Your task to perform on an android device: Open location settings Image 0: 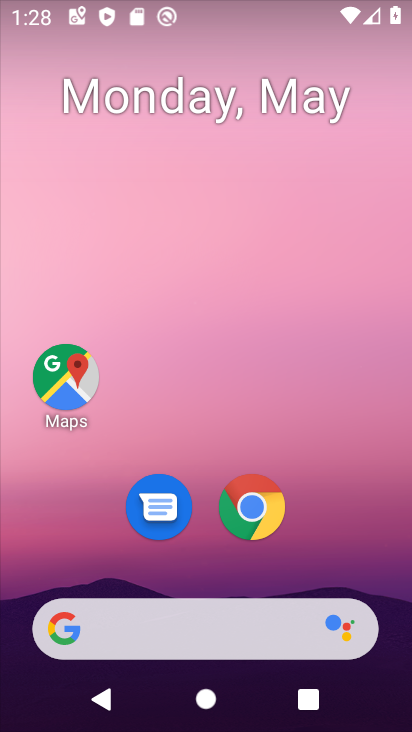
Step 0: drag from (250, 713) to (239, 99)
Your task to perform on an android device: Open location settings Image 1: 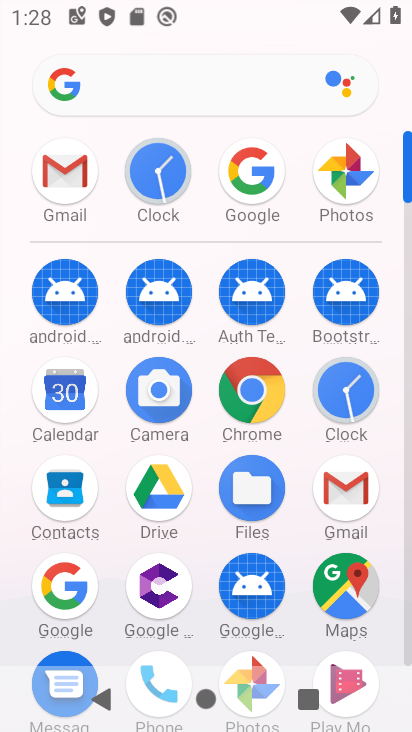
Step 1: drag from (195, 562) to (195, 177)
Your task to perform on an android device: Open location settings Image 2: 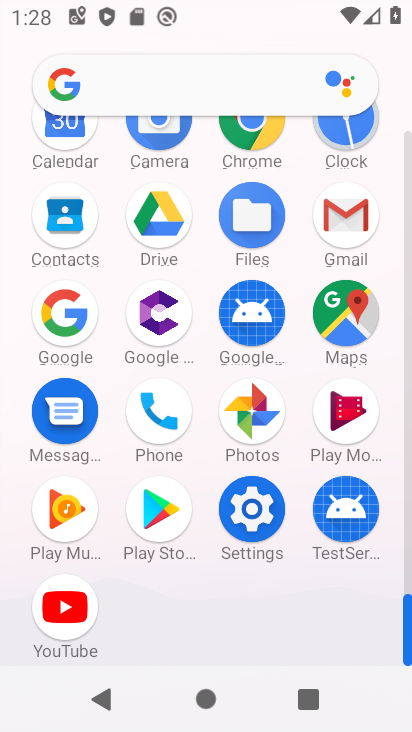
Step 2: click (252, 520)
Your task to perform on an android device: Open location settings Image 3: 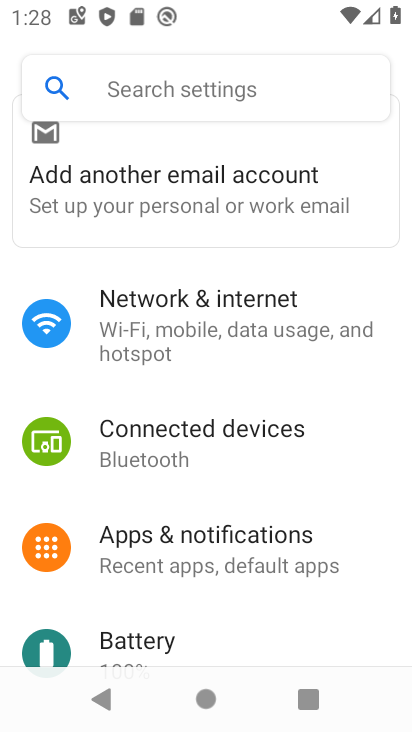
Step 3: drag from (218, 617) to (221, 210)
Your task to perform on an android device: Open location settings Image 4: 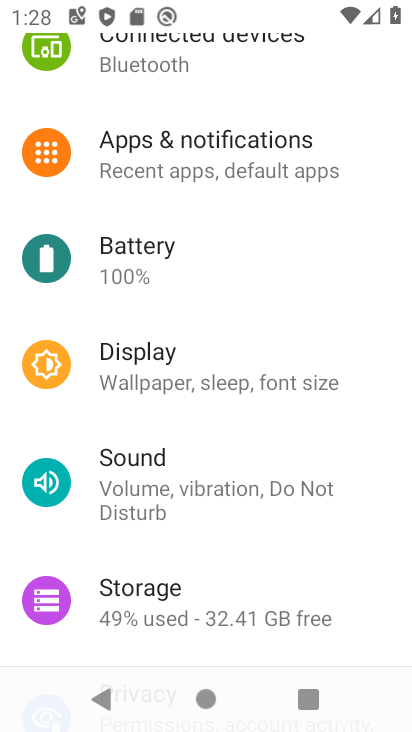
Step 4: drag from (200, 637) to (200, 242)
Your task to perform on an android device: Open location settings Image 5: 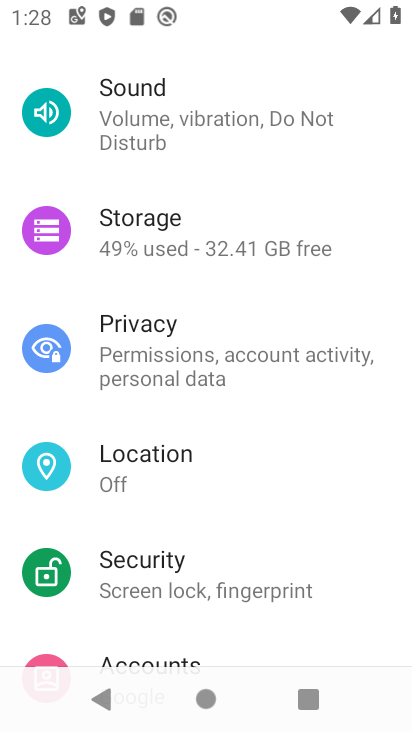
Step 5: click (118, 458)
Your task to perform on an android device: Open location settings Image 6: 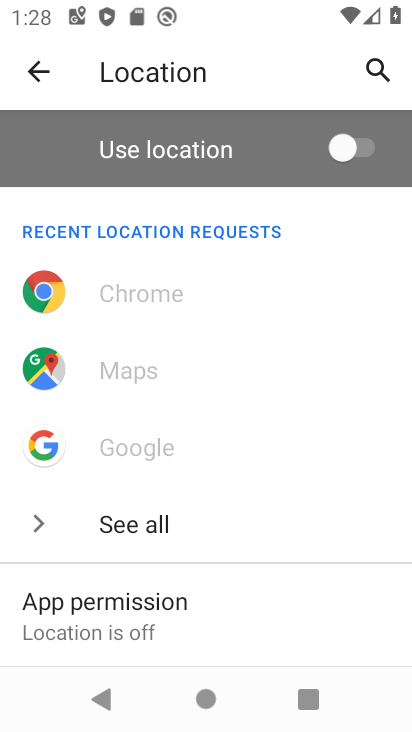
Step 6: task complete